Your task to perform on an android device: search for starred emails in the gmail app Image 0: 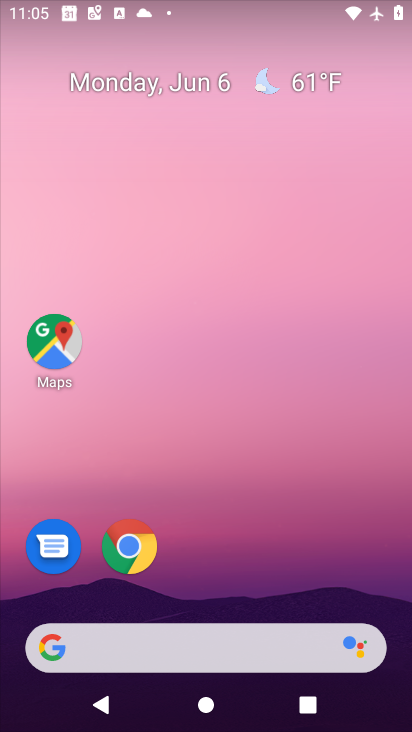
Step 0: drag from (378, 599) to (314, 133)
Your task to perform on an android device: search for starred emails in the gmail app Image 1: 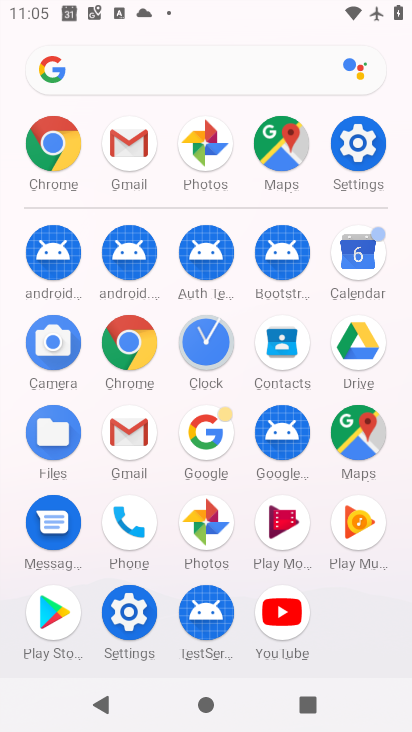
Step 1: click (128, 436)
Your task to perform on an android device: search for starred emails in the gmail app Image 2: 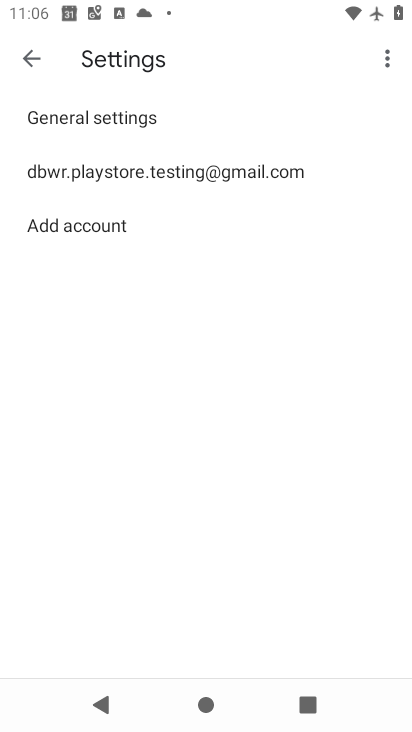
Step 2: press back button
Your task to perform on an android device: search for starred emails in the gmail app Image 3: 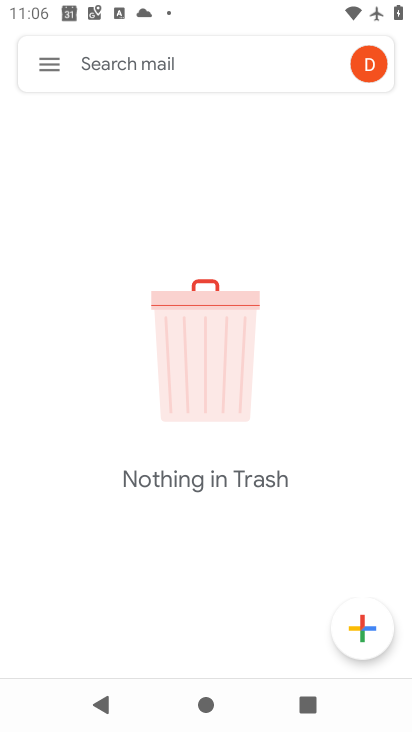
Step 3: click (50, 64)
Your task to perform on an android device: search for starred emails in the gmail app Image 4: 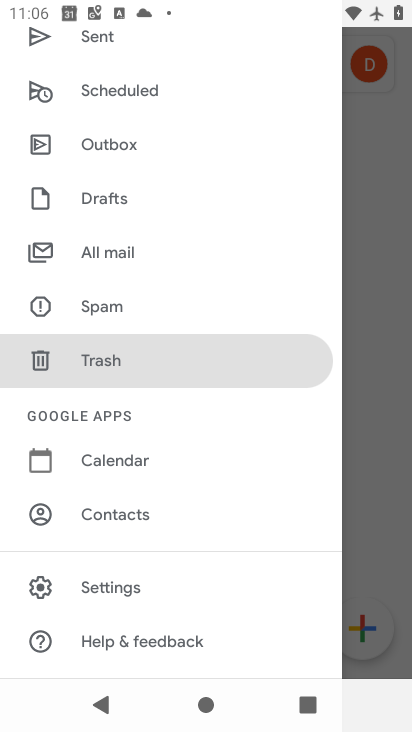
Step 4: drag from (273, 130) to (244, 366)
Your task to perform on an android device: search for starred emails in the gmail app Image 5: 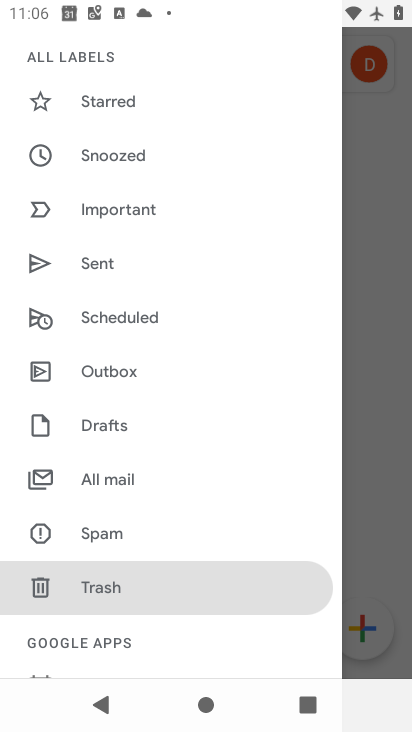
Step 5: click (90, 86)
Your task to perform on an android device: search for starred emails in the gmail app Image 6: 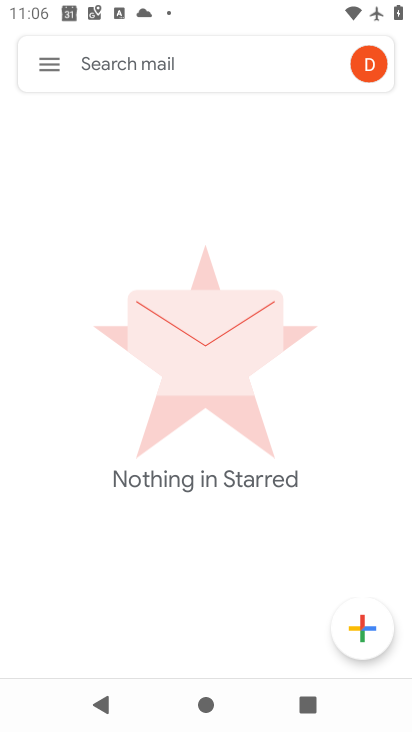
Step 6: task complete